Your task to perform on an android device: turn on notifications settings in the gmail app Image 0: 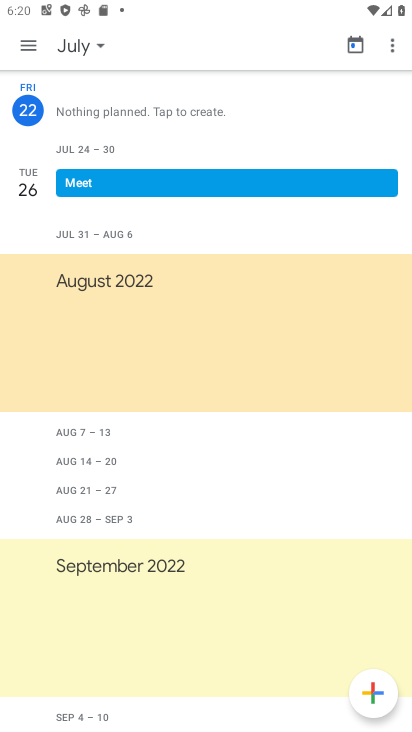
Step 0: press home button
Your task to perform on an android device: turn on notifications settings in the gmail app Image 1: 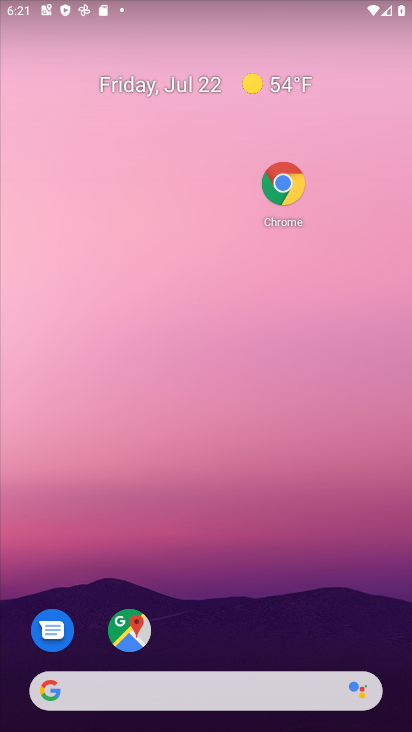
Step 1: drag from (212, 616) to (122, 97)
Your task to perform on an android device: turn on notifications settings in the gmail app Image 2: 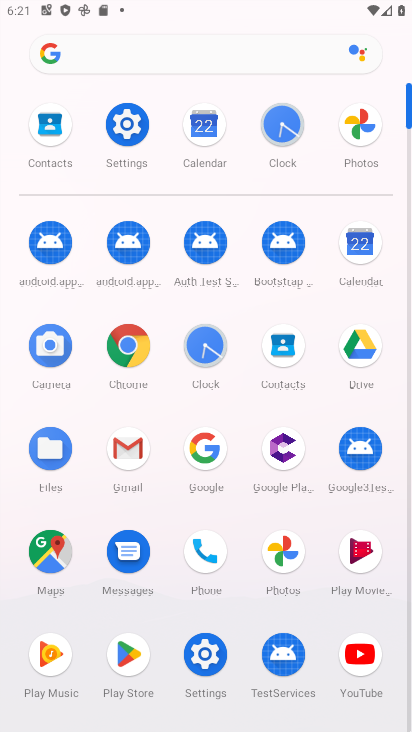
Step 2: click (123, 460)
Your task to perform on an android device: turn on notifications settings in the gmail app Image 3: 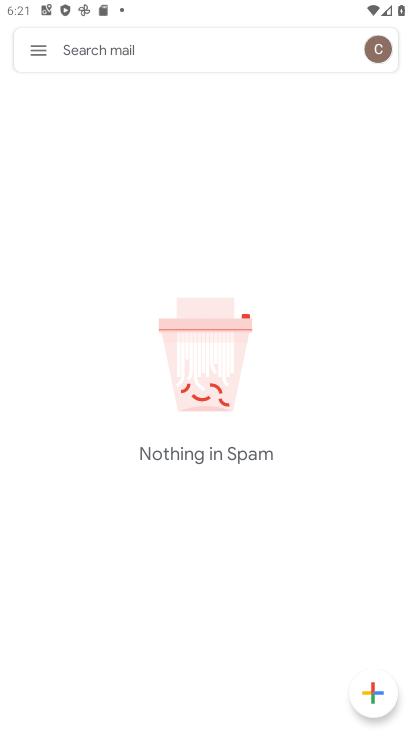
Step 3: click (40, 53)
Your task to perform on an android device: turn on notifications settings in the gmail app Image 4: 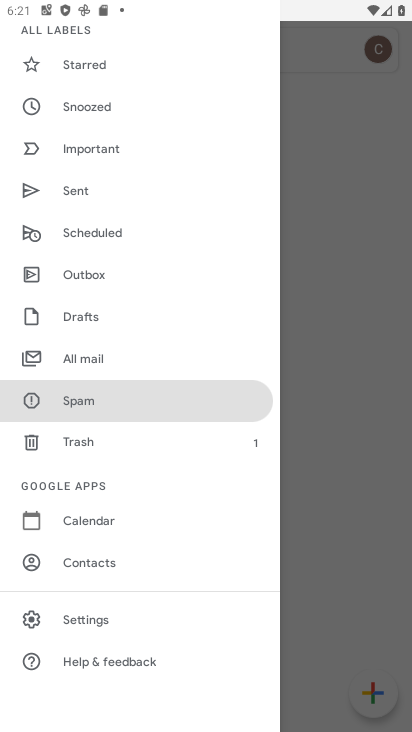
Step 4: click (82, 618)
Your task to perform on an android device: turn on notifications settings in the gmail app Image 5: 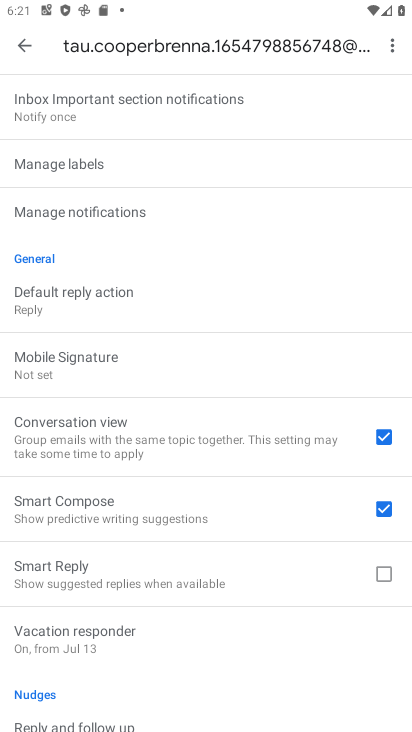
Step 5: click (121, 217)
Your task to perform on an android device: turn on notifications settings in the gmail app Image 6: 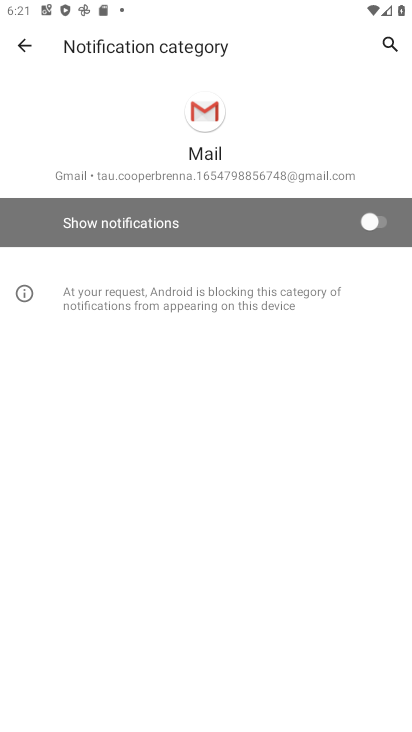
Step 6: click (377, 221)
Your task to perform on an android device: turn on notifications settings in the gmail app Image 7: 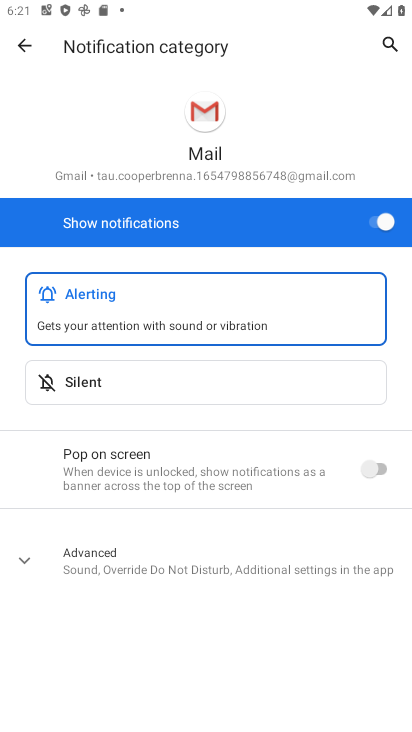
Step 7: click (381, 222)
Your task to perform on an android device: turn on notifications settings in the gmail app Image 8: 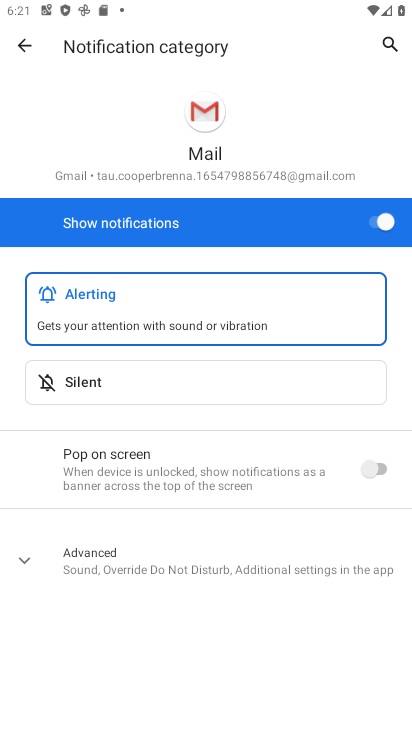
Step 8: task complete